Your task to perform on an android device: Go to Android settings Image 0: 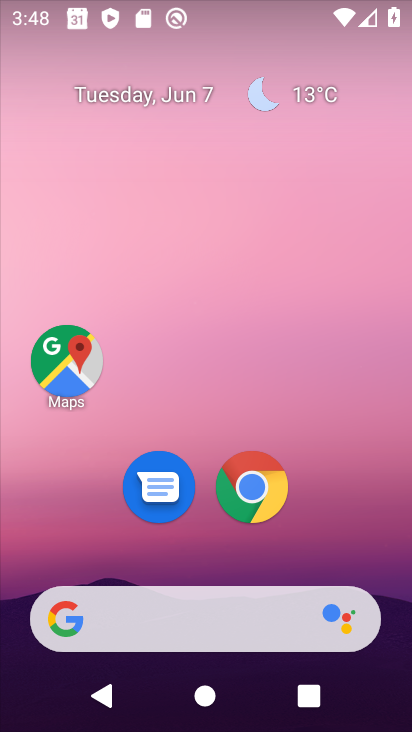
Step 0: drag from (185, 566) to (258, 72)
Your task to perform on an android device: Go to Android settings Image 1: 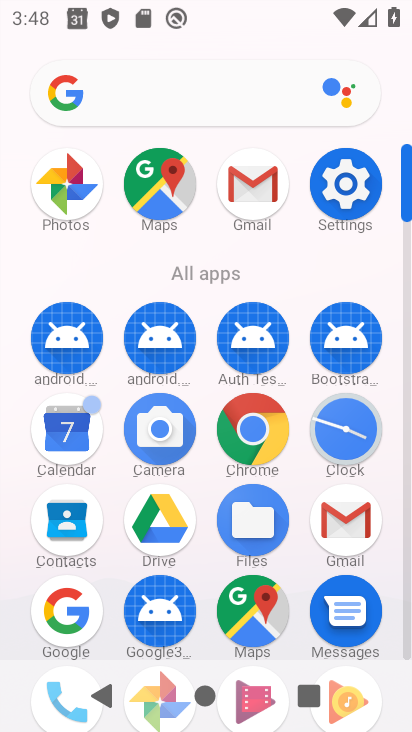
Step 1: click (329, 185)
Your task to perform on an android device: Go to Android settings Image 2: 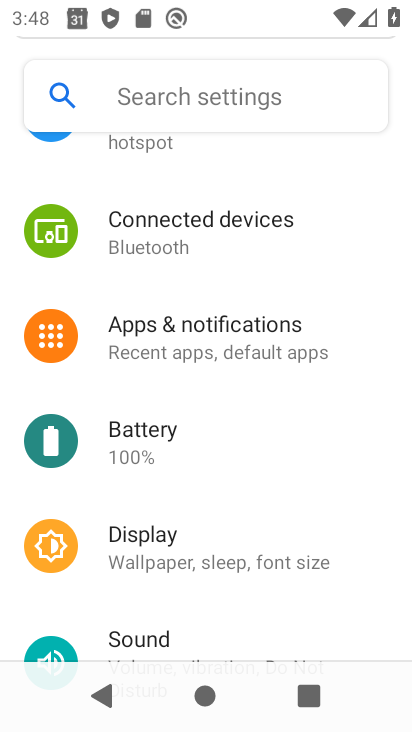
Step 2: drag from (249, 552) to (323, 31)
Your task to perform on an android device: Go to Android settings Image 3: 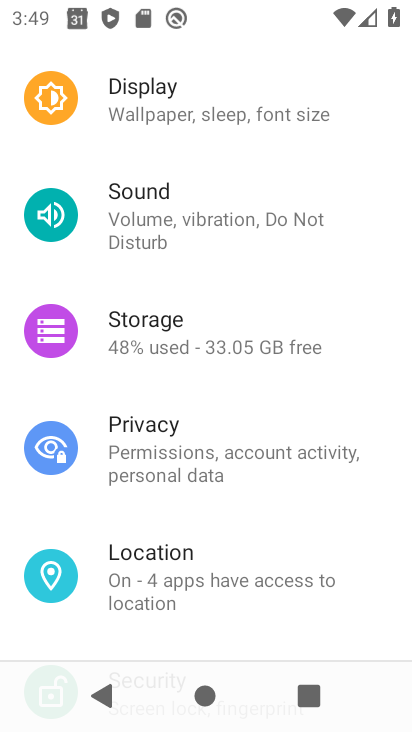
Step 3: drag from (161, 568) to (304, 90)
Your task to perform on an android device: Go to Android settings Image 4: 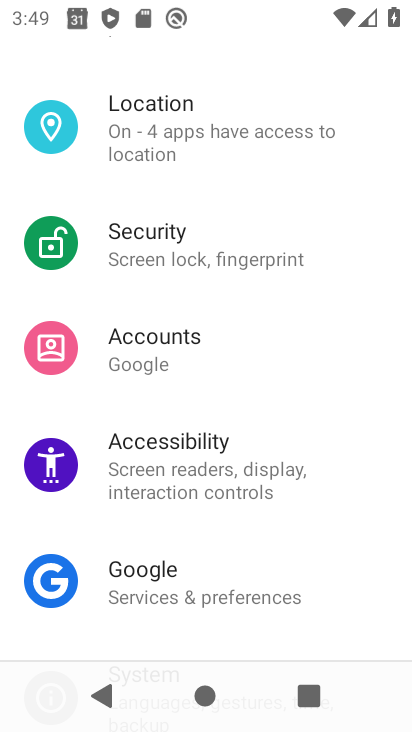
Step 4: drag from (177, 549) to (317, 90)
Your task to perform on an android device: Go to Android settings Image 5: 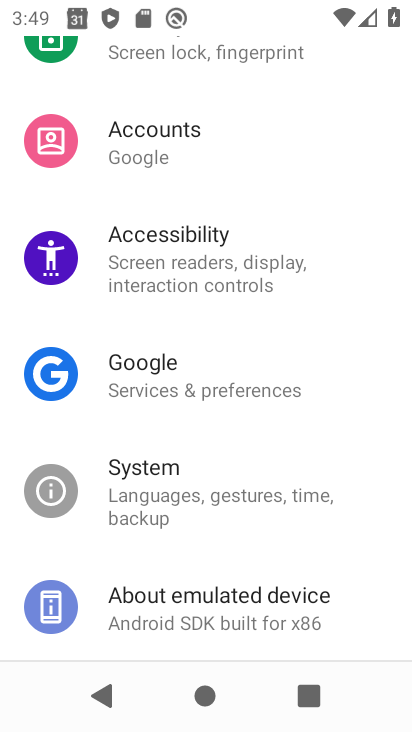
Step 5: click (167, 607)
Your task to perform on an android device: Go to Android settings Image 6: 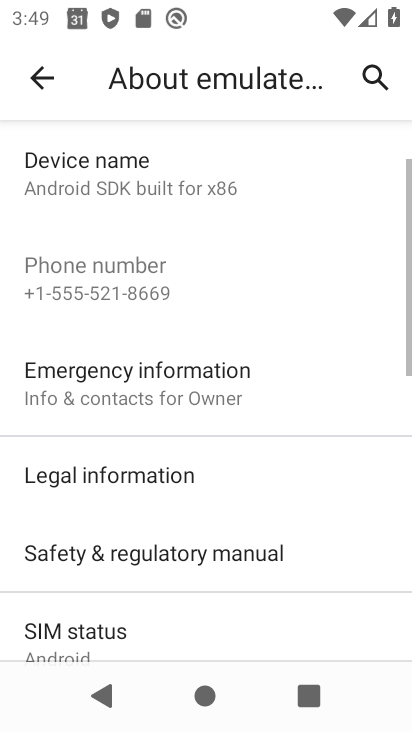
Step 6: task complete